Your task to perform on an android device: Open Chrome and go to settings Image 0: 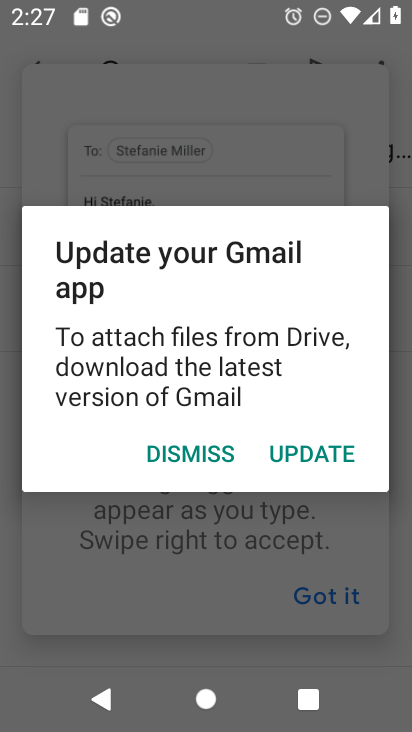
Step 0: press home button
Your task to perform on an android device: Open Chrome and go to settings Image 1: 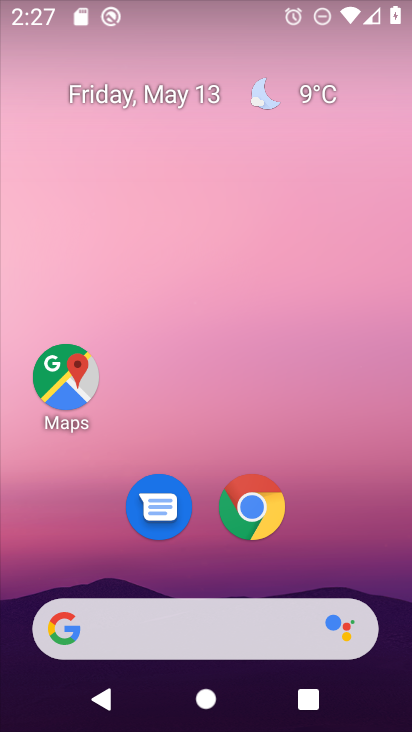
Step 1: drag from (336, 432) to (360, 143)
Your task to perform on an android device: Open Chrome and go to settings Image 2: 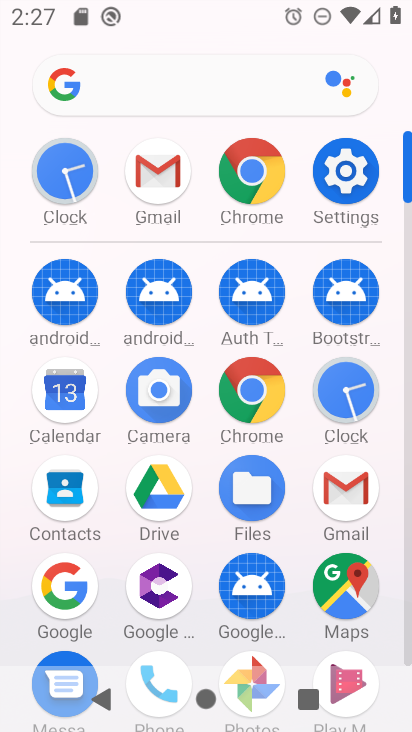
Step 2: click (258, 184)
Your task to perform on an android device: Open Chrome and go to settings Image 3: 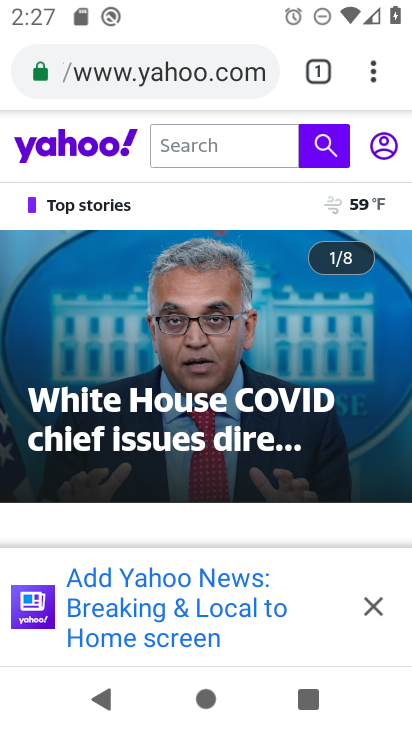
Step 3: task complete